Your task to perform on an android device: turn on the 12-hour format for clock Image 0: 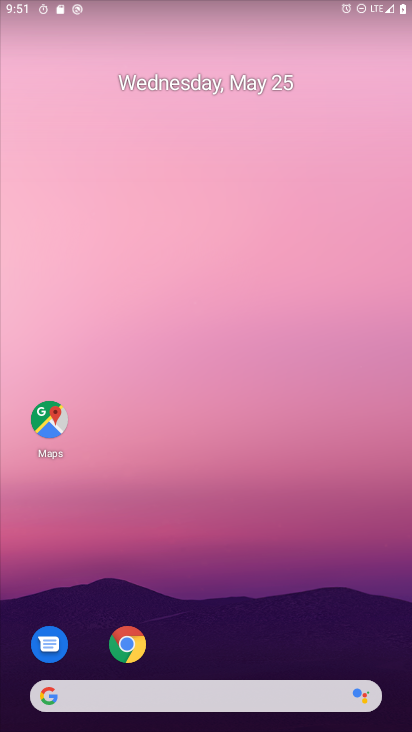
Step 0: drag from (353, 604) to (223, 28)
Your task to perform on an android device: turn on the 12-hour format for clock Image 1: 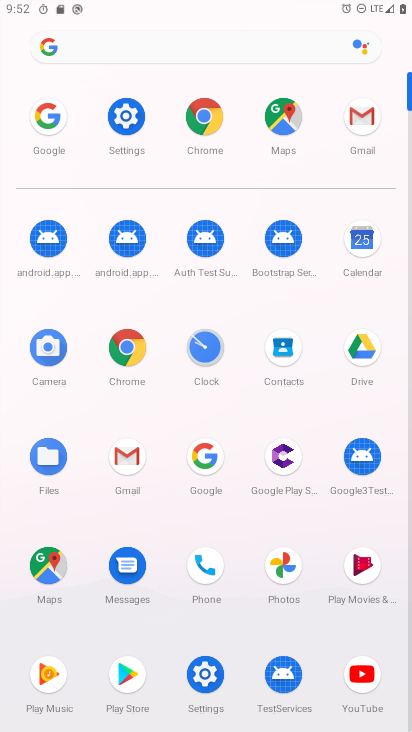
Step 1: click (199, 357)
Your task to perform on an android device: turn on the 12-hour format for clock Image 2: 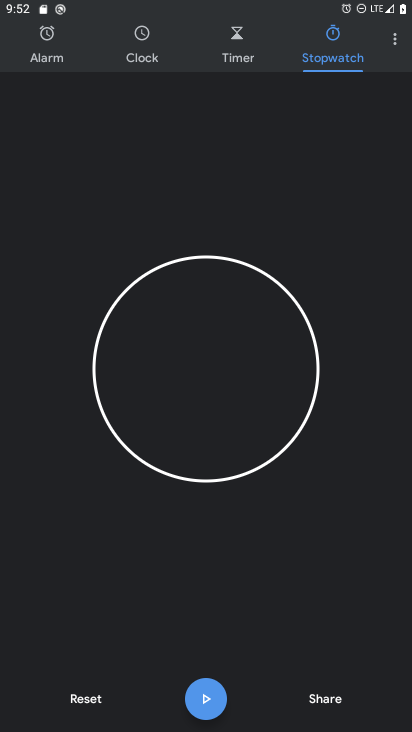
Step 2: click (391, 39)
Your task to perform on an android device: turn on the 12-hour format for clock Image 3: 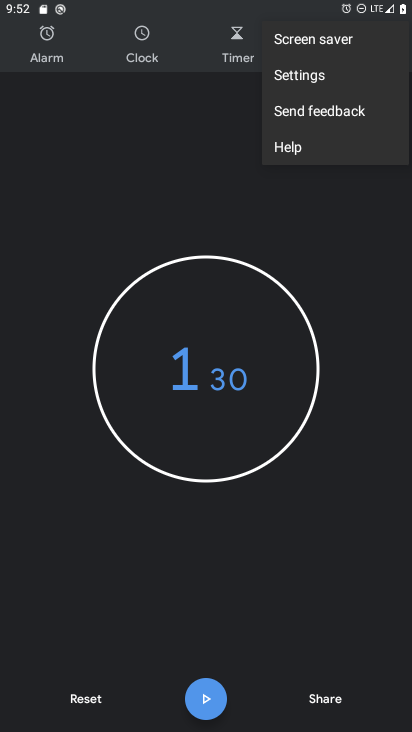
Step 3: click (279, 75)
Your task to perform on an android device: turn on the 12-hour format for clock Image 4: 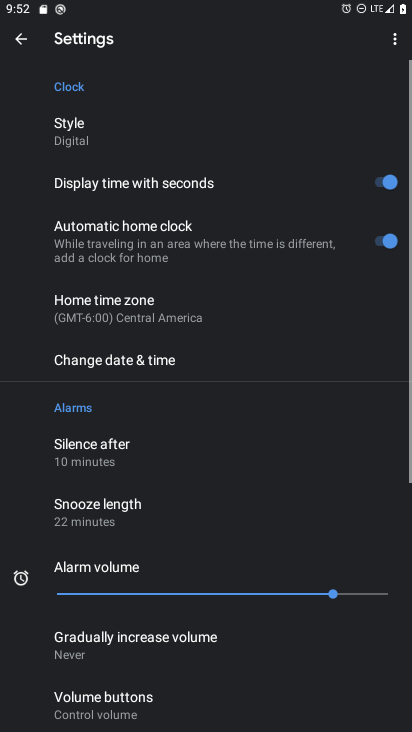
Step 4: click (110, 353)
Your task to perform on an android device: turn on the 12-hour format for clock Image 5: 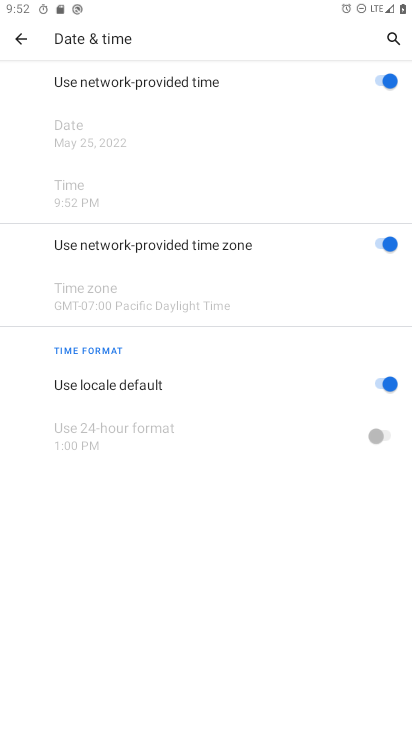
Step 5: task complete